Your task to perform on an android device: Open the downloads Image 0: 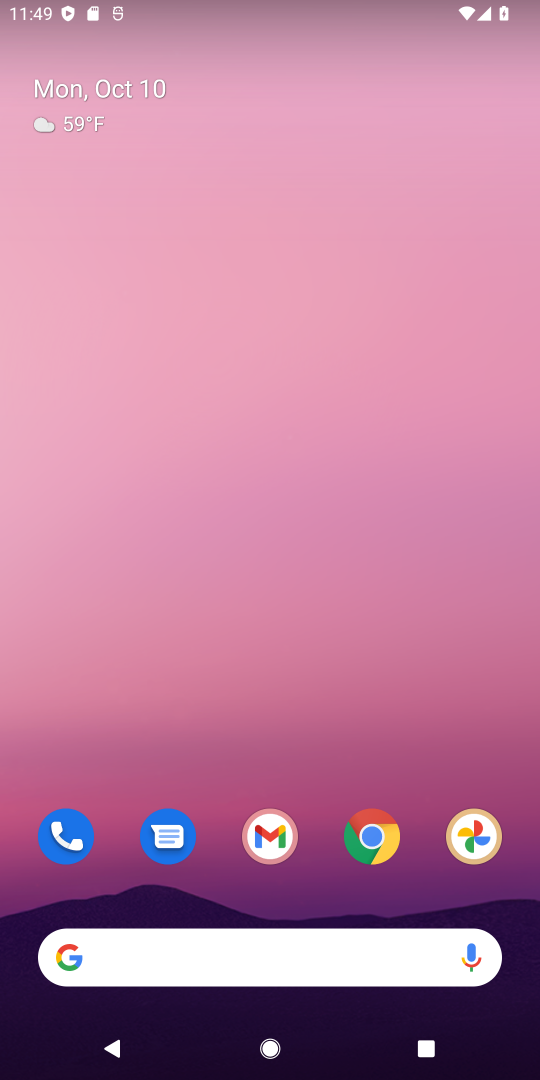
Step 0: drag from (398, 702) to (354, 64)
Your task to perform on an android device: Open the downloads Image 1: 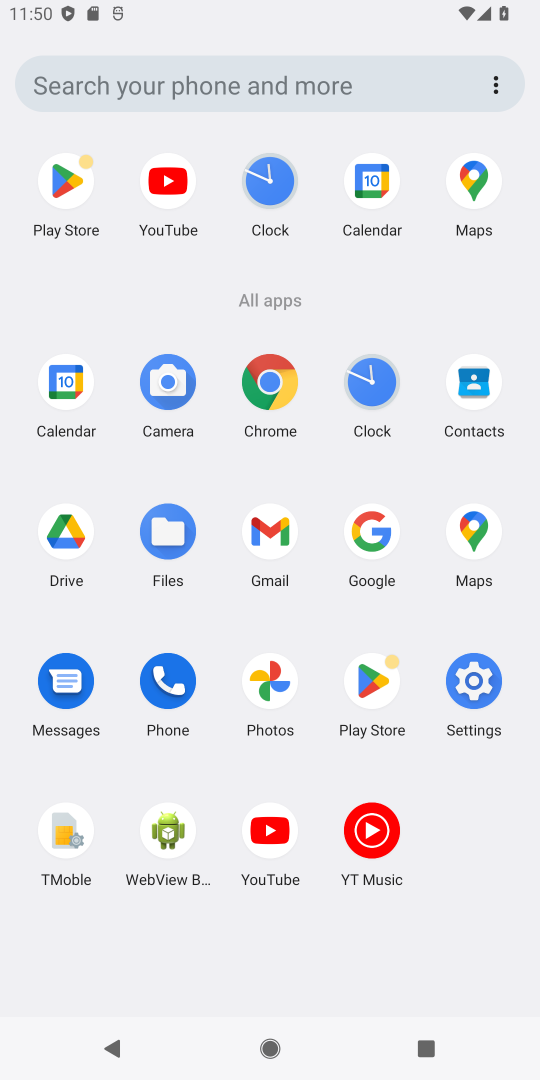
Step 1: click (172, 535)
Your task to perform on an android device: Open the downloads Image 2: 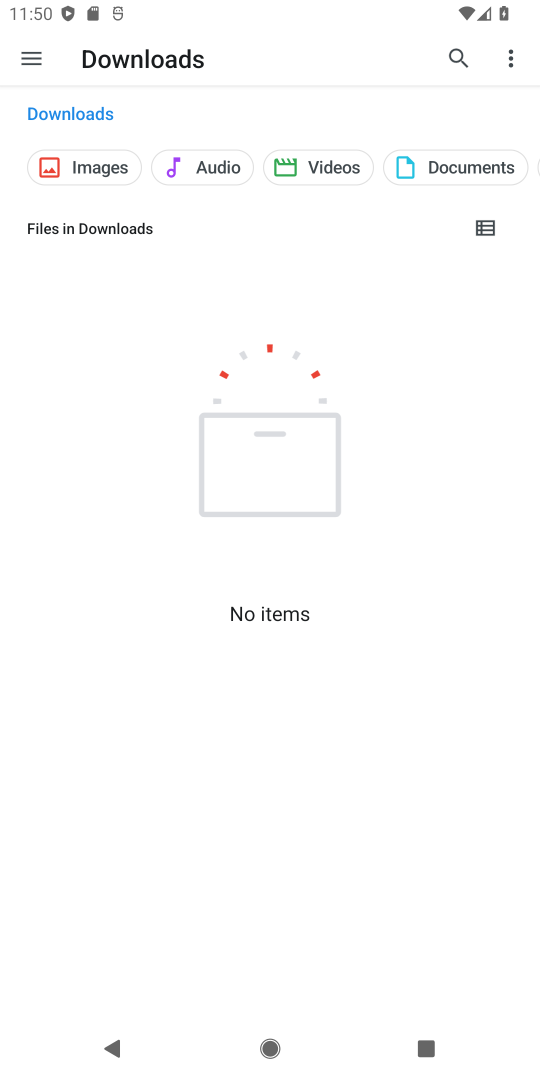
Step 2: task complete